Your task to perform on an android device: empty trash in the gmail app Image 0: 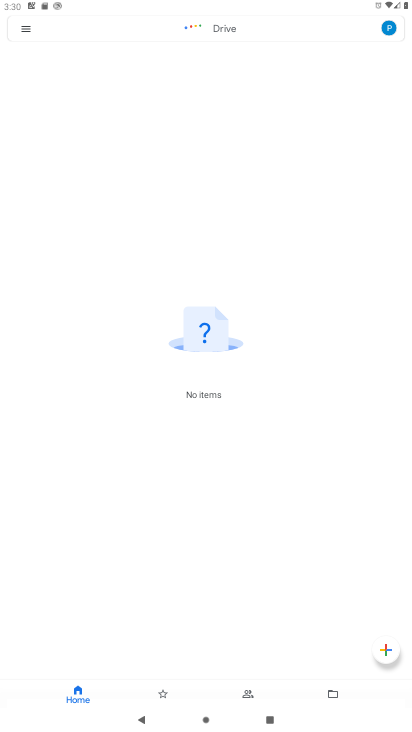
Step 0: press back button
Your task to perform on an android device: empty trash in the gmail app Image 1: 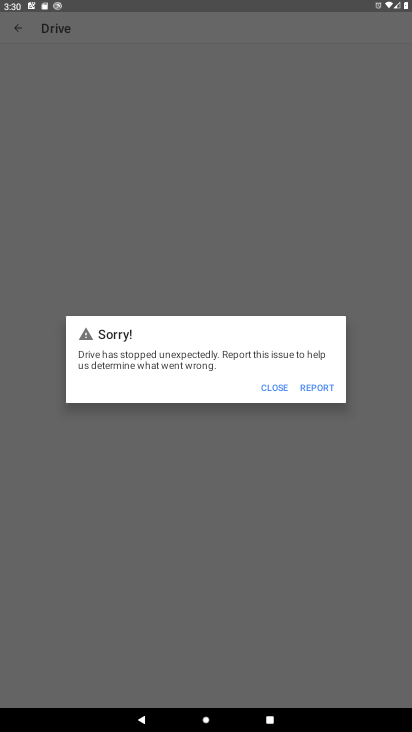
Step 1: press home button
Your task to perform on an android device: empty trash in the gmail app Image 2: 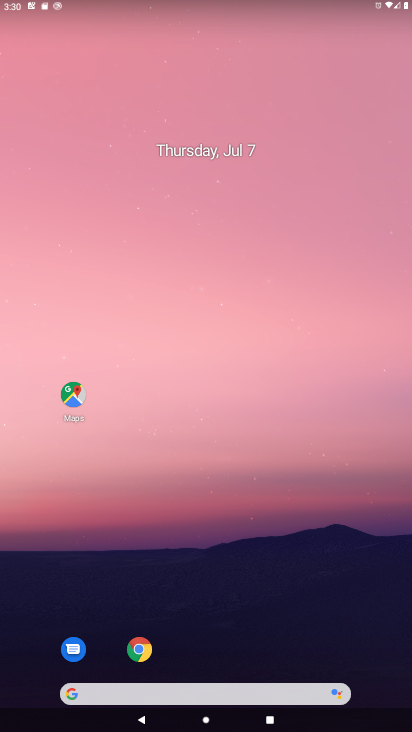
Step 2: drag from (202, 547) to (275, 4)
Your task to perform on an android device: empty trash in the gmail app Image 3: 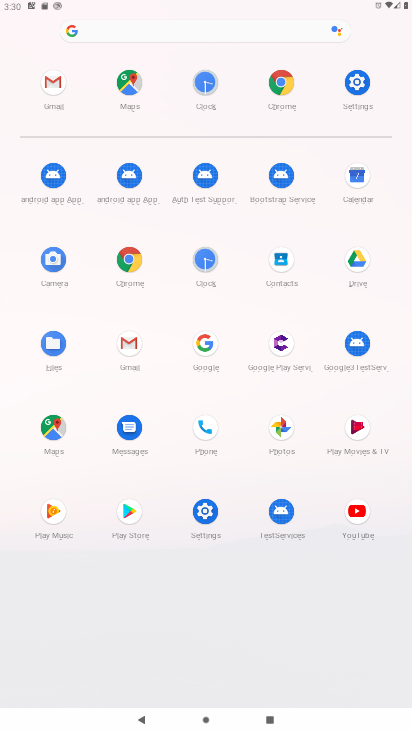
Step 3: click (51, 86)
Your task to perform on an android device: empty trash in the gmail app Image 4: 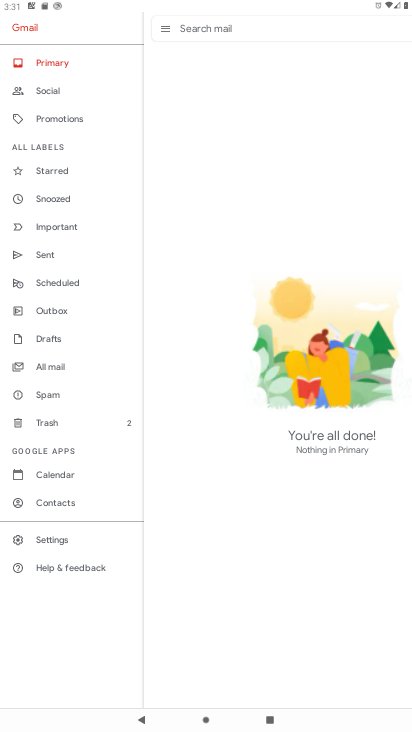
Step 4: click (56, 420)
Your task to perform on an android device: empty trash in the gmail app Image 5: 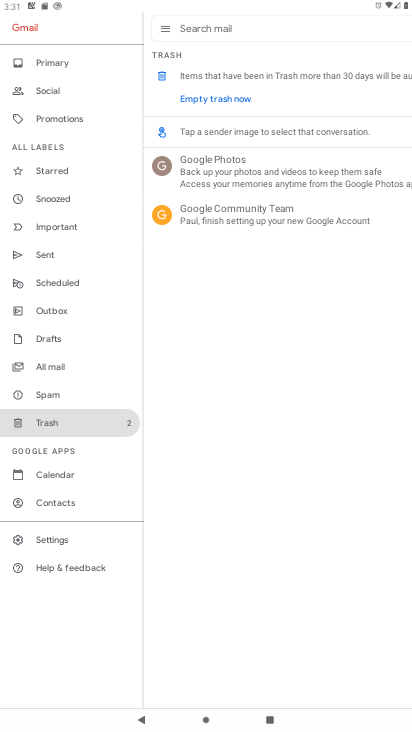
Step 5: click (60, 423)
Your task to perform on an android device: empty trash in the gmail app Image 6: 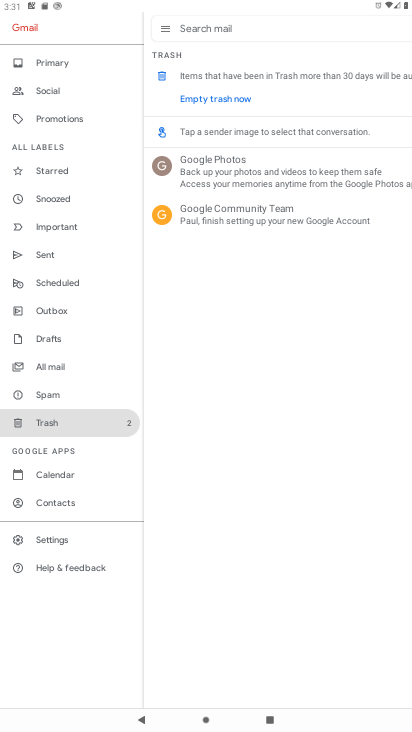
Step 6: click (230, 102)
Your task to perform on an android device: empty trash in the gmail app Image 7: 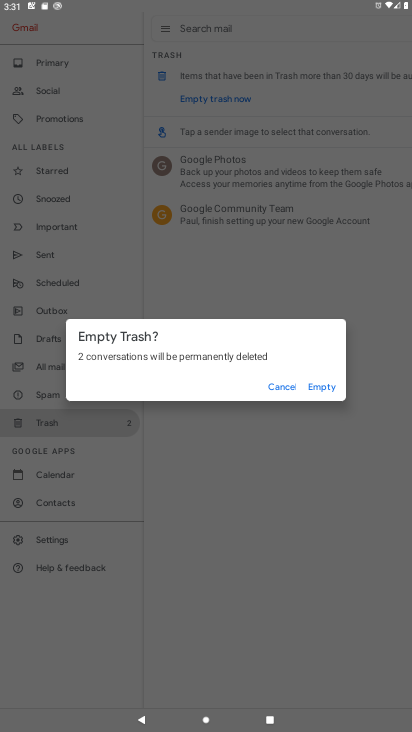
Step 7: click (314, 390)
Your task to perform on an android device: empty trash in the gmail app Image 8: 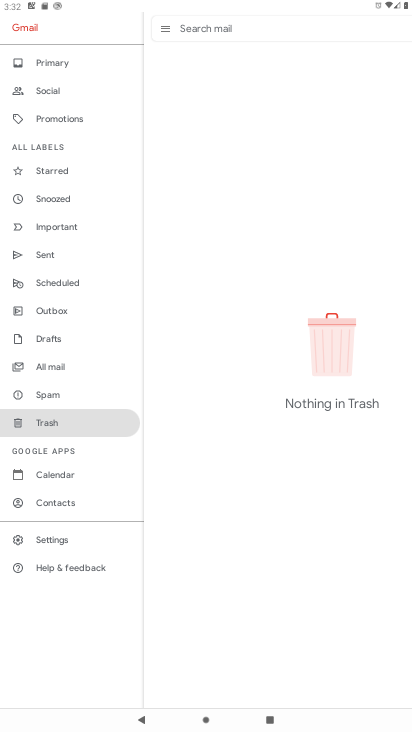
Step 8: task complete